Your task to perform on an android device: open app "Nova Launcher" (install if not already installed) Image 0: 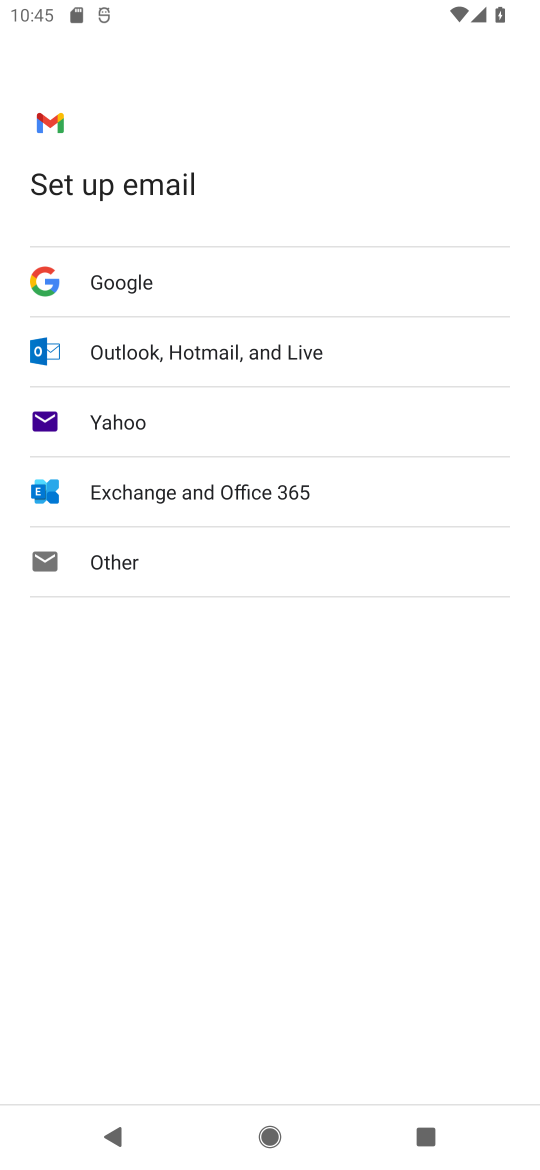
Step 0: press home button
Your task to perform on an android device: open app "Nova Launcher" (install if not already installed) Image 1: 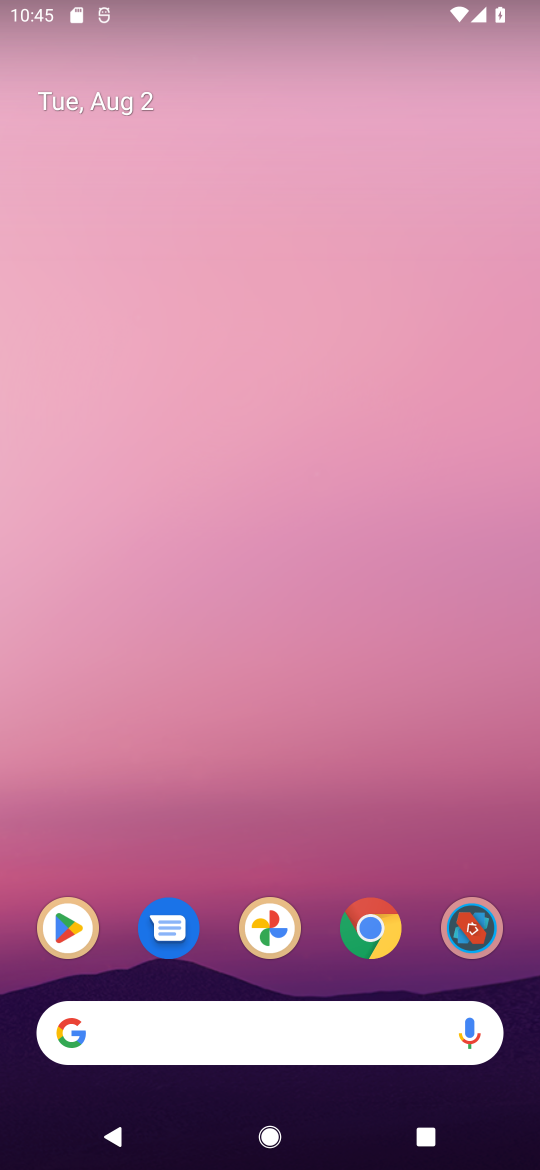
Step 1: click (57, 937)
Your task to perform on an android device: open app "Nova Launcher" (install if not already installed) Image 2: 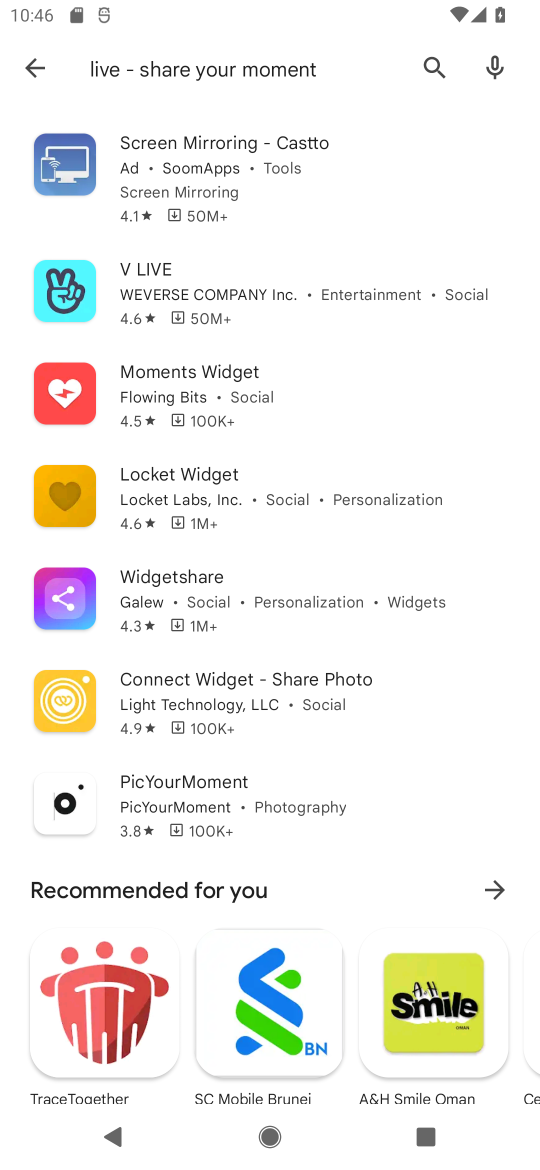
Step 2: click (431, 65)
Your task to perform on an android device: open app "Nova Launcher" (install if not already installed) Image 3: 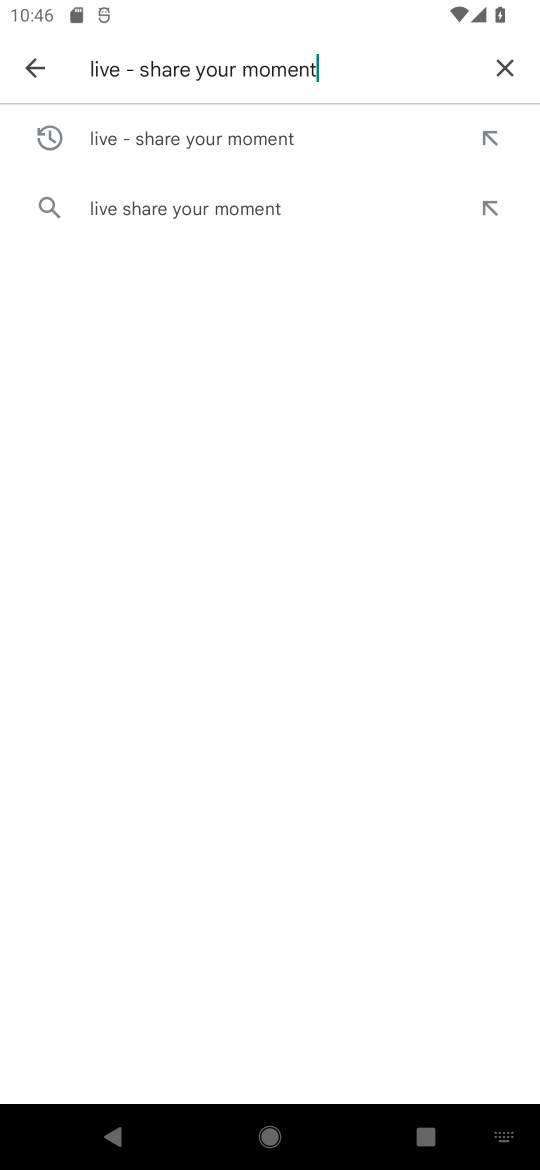
Step 3: click (504, 58)
Your task to perform on an android device: open app "Nova Launcher" (install if not already installed) Image 4: 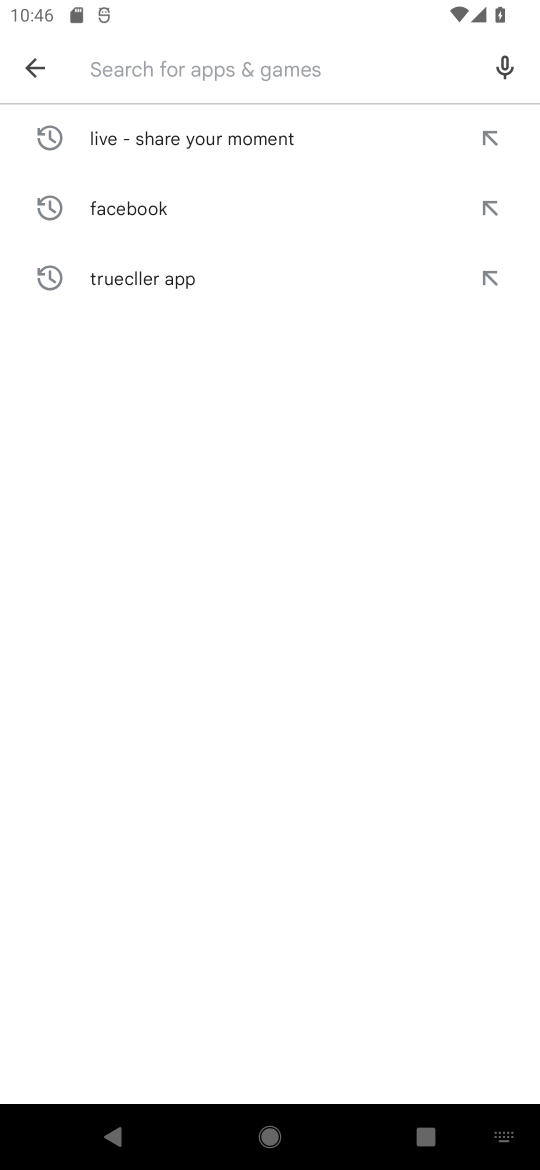
Step 4: type "nova launcher"
Your task to perform on an android device: open app "Nova Launcher" (install if not already installed) Image 5: 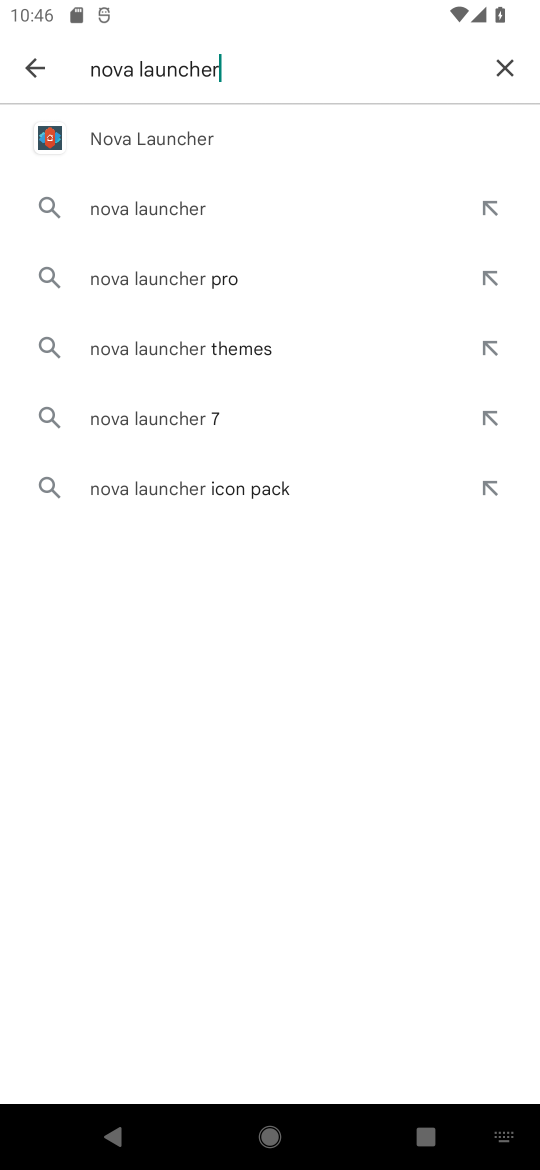
Step 5: click (237, 130)
Your task to perform on an android device: open app "Nova Launcher" (install if not already installed) Image 6: 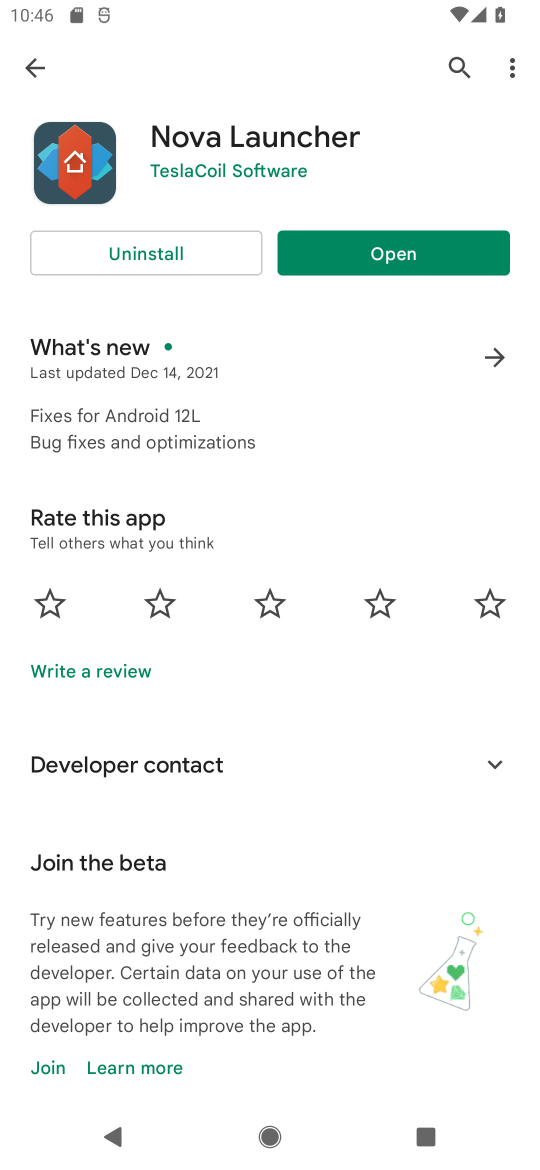
Step 6: click (358, 251)
Your task to perform on an android device: open app "Nova Launcher" (install if not already installed) Image 7: 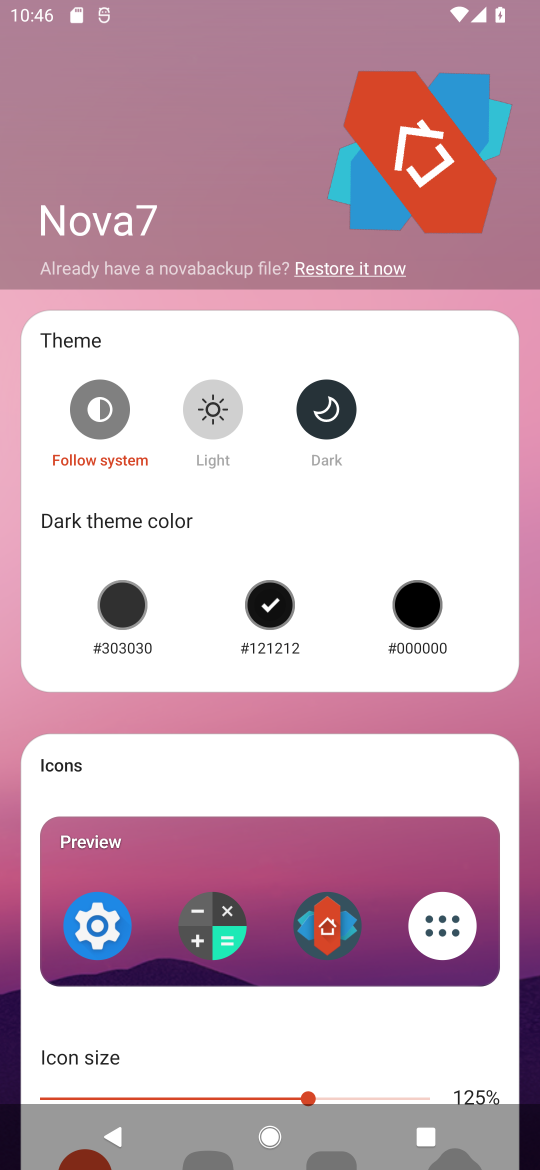
Step 7: task complete